Your task to perform on an android device: Go to Yahoo.com Image 0: 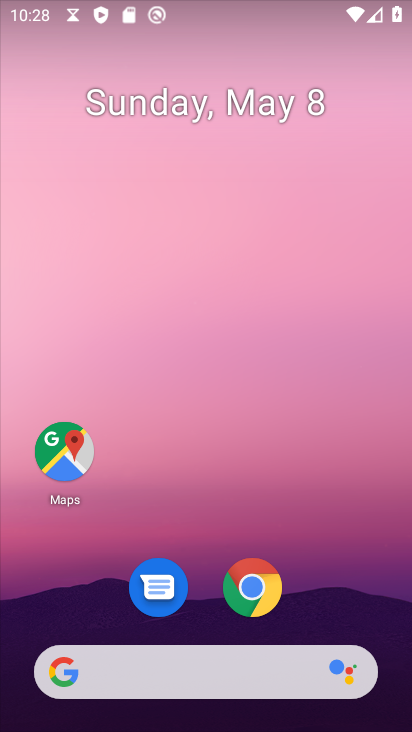
Step 0: drag from (348, 594) to (148, 157)
Your task to perform on an android device: Go to Yahoo.com Image 1: 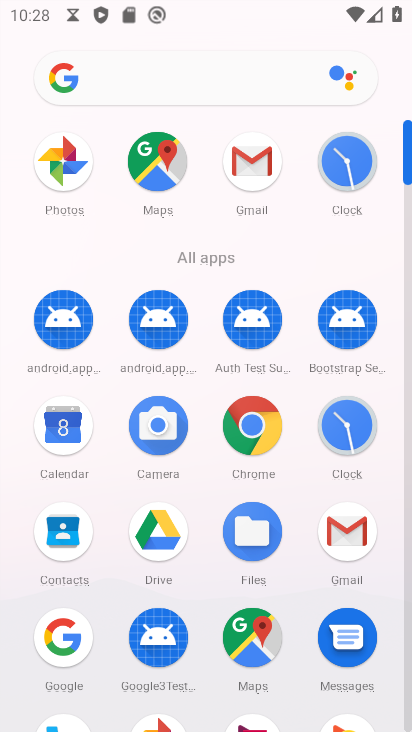
Step 1: click (266, 429)
Your task to perform on an android device: Go to Yahoo.com Image 2: 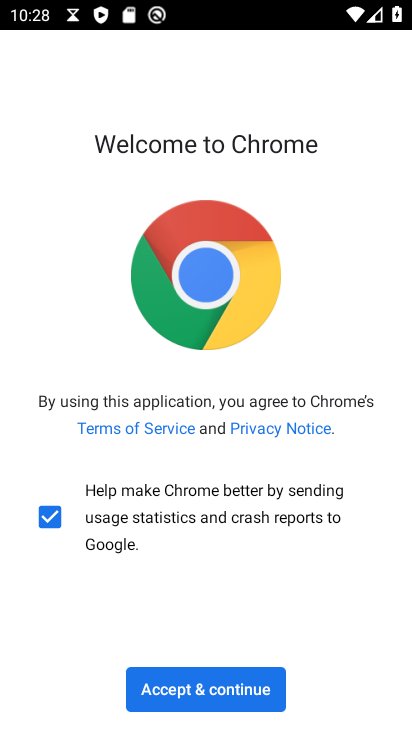
Step 2: click (206, 688)
Your task to perform on an android device: Go to Yahoo.com Image 3: 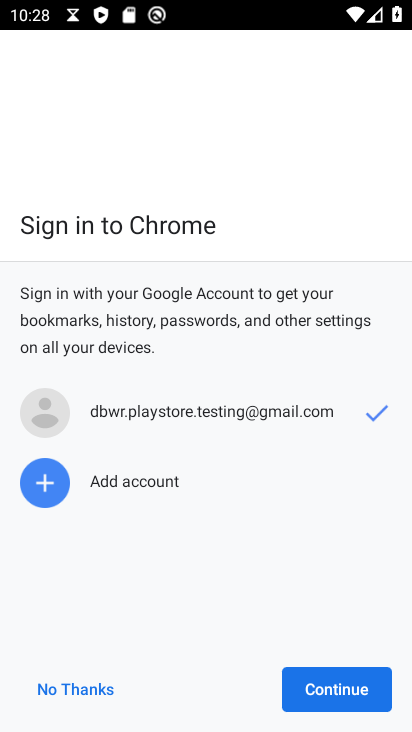
Step 3: click (310, 683)
Your task to perform on an android device: Go to Yahoo.com Image 4: 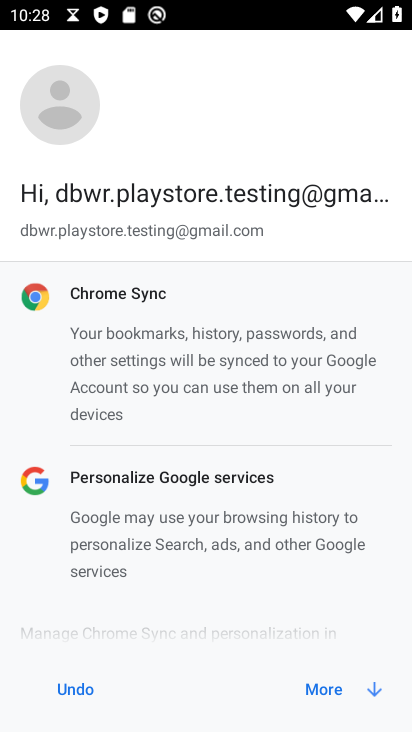
Step 4: click (340, 686)
Your task to perform on an android device: Go to Yahoo.com Image 5: 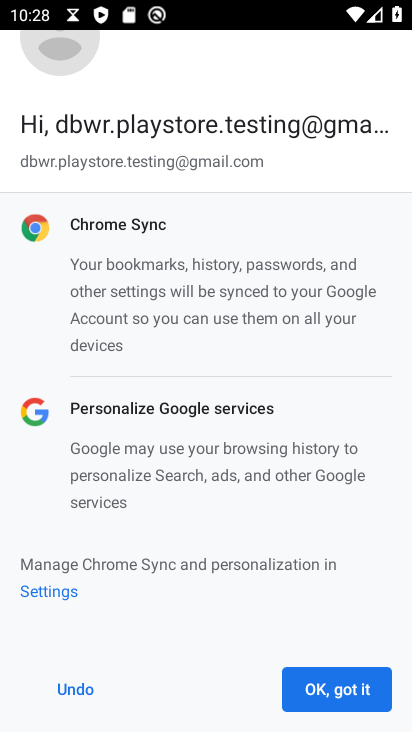
Step 5: click (330, 686)
Your task to perform on an android device: Go to Yahoo.com Image 6: 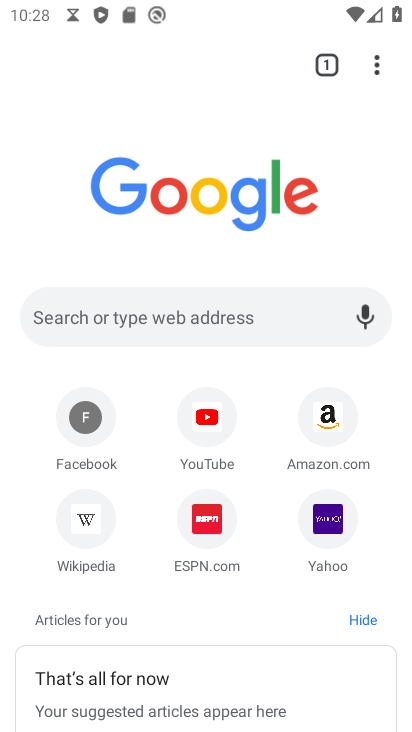
Step 6: click (337, 531)
Your task to perform on an android device: Go to Yahoo.com Image 7: 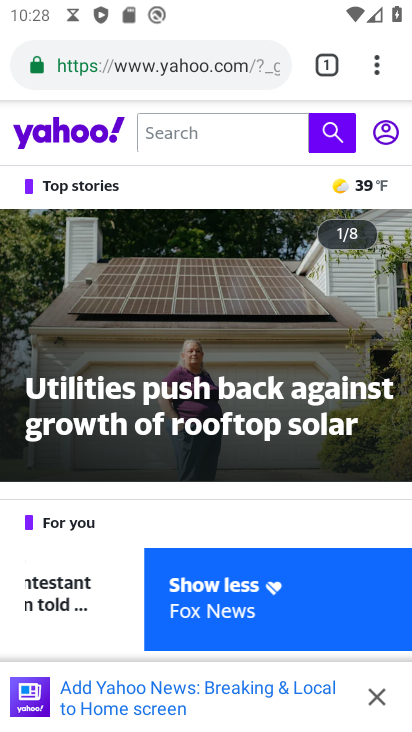
Step 7: task complete